Your task to perform on an android device: See recent photos Image 0: 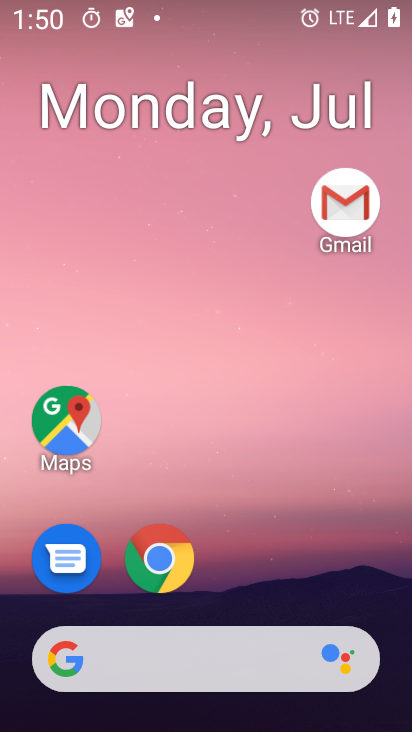
Step 0: drag from (311, 556) to (337, 133)
Your task to perform on an android device: See recent photos Image 1: 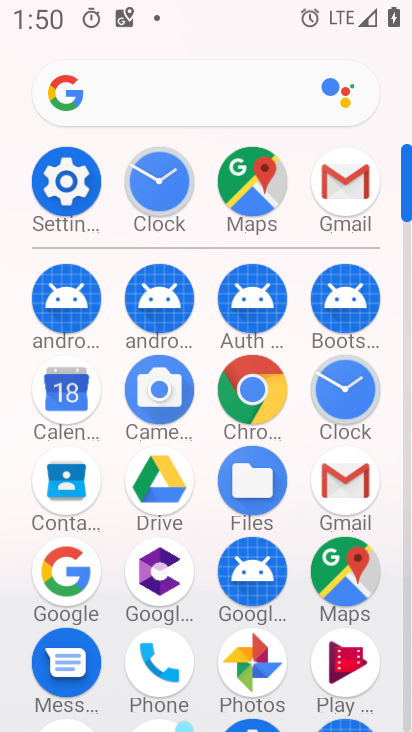
Step 1: click (258, 658)
Your task to perform on an android device: See recent photos Image 2: 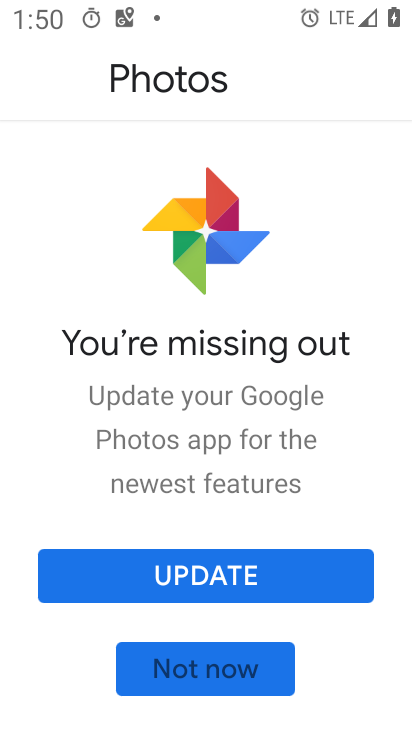
Step 2: click (293, 573)
Your task to perform on an android device: See recent photos Image 3: 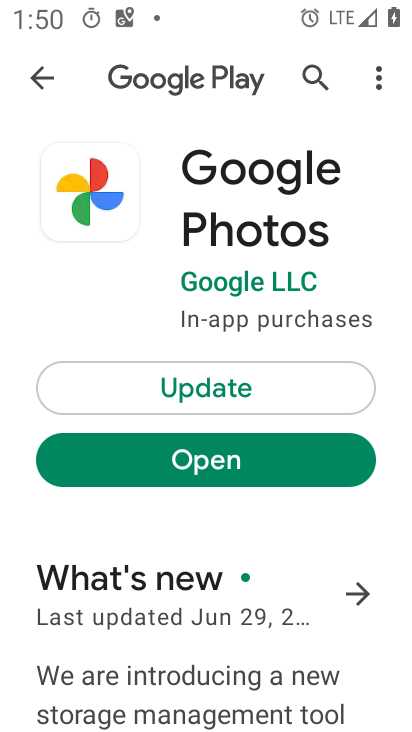
Step 3: click (270, 387)
Your task to perform on an android device: See recent photos Image 4: 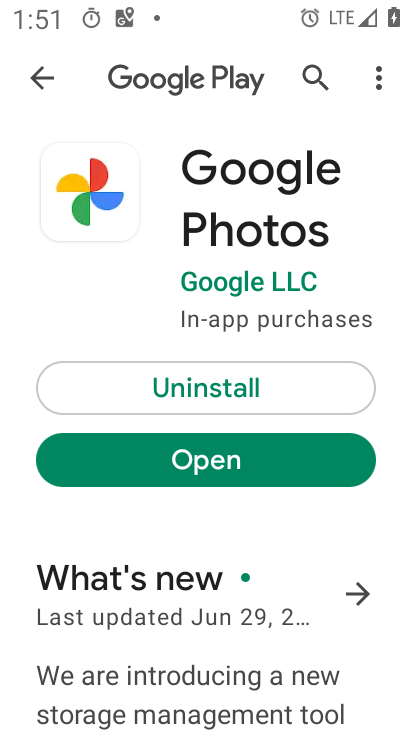
Step 4: click (243, 460)
Your task to perform on an android device: See recent photos Image 5: 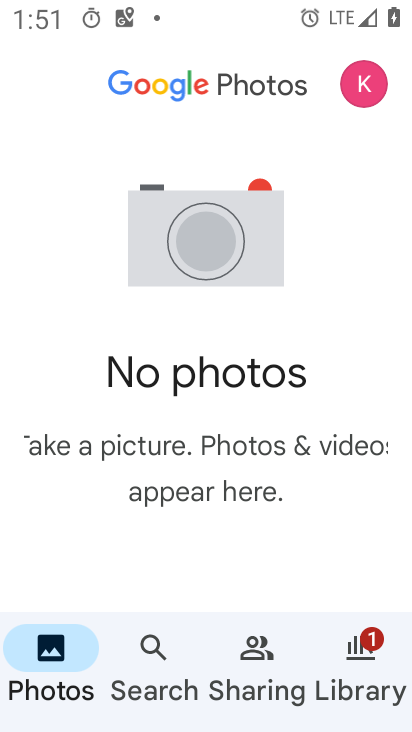
Step 5: task complete